Your task to perform on an android device: toggle wifi Image 0: 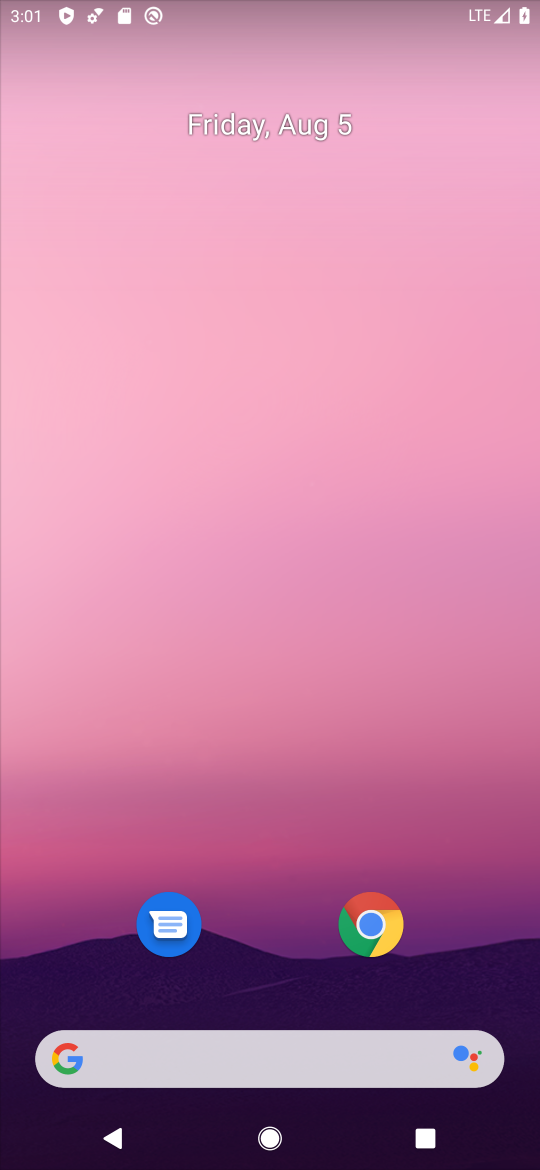
Step 0: drag from (475, 925) to (425, 150)
Your task to perform on an android device: toggle wifi Image 1: 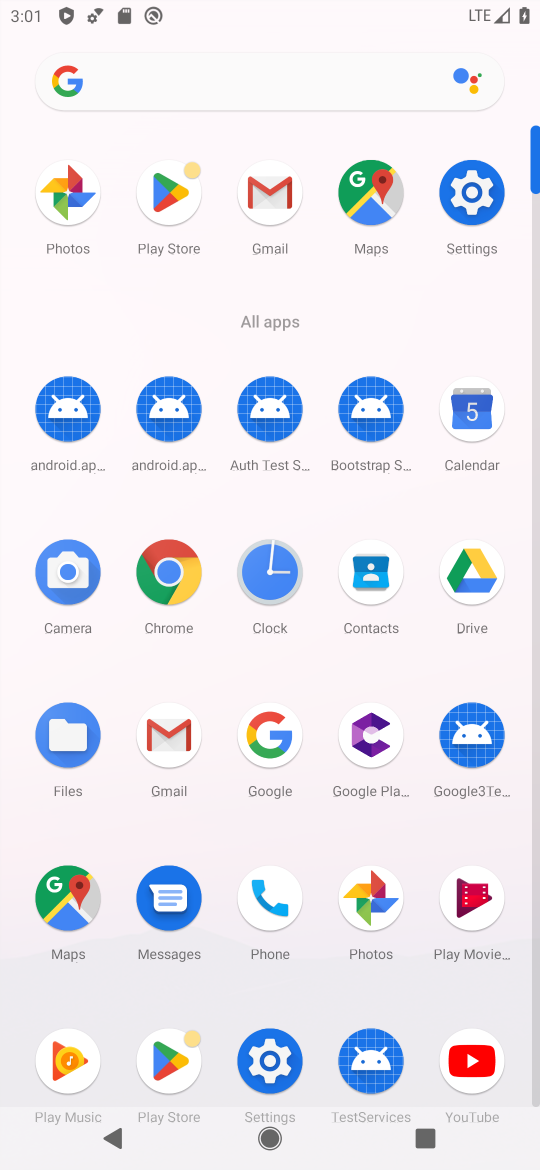
Step 1: click (258, 1063)
Your task to perform on an android device: toggle wifi Image 2: 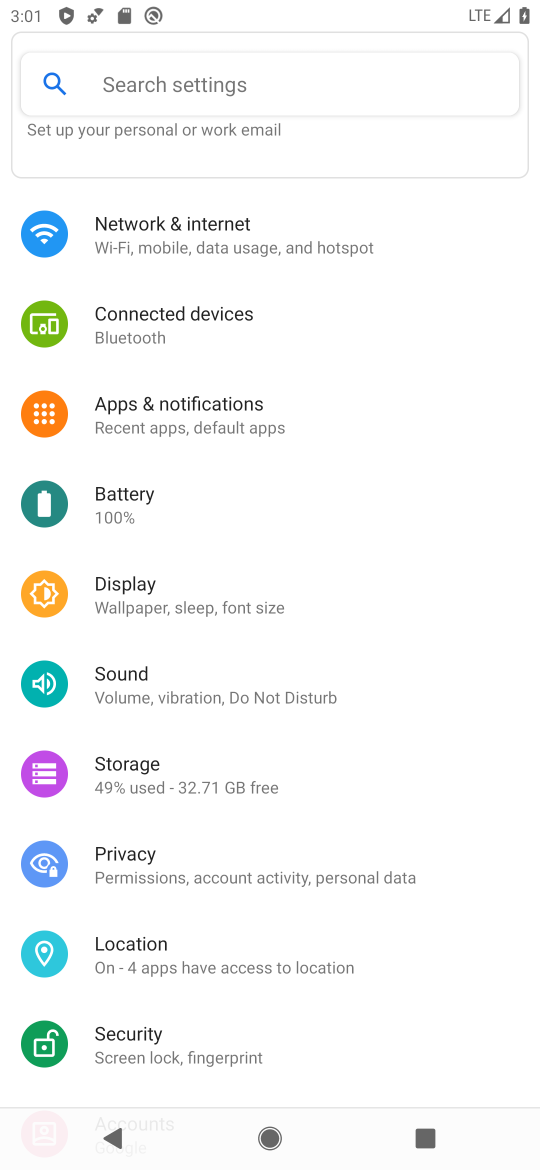
Step 2: click (204, 253)
Your task to perform on an android device: toggle wifi Image 3: 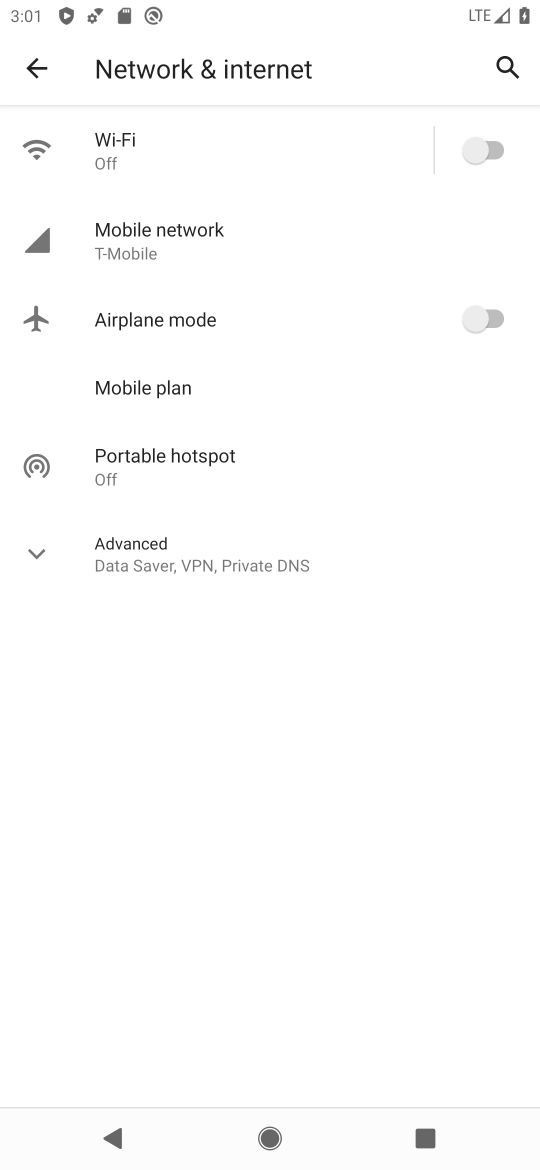
Step 3: click (447, 151)
Your task to perform on an android device: toggle wifi Image 4: 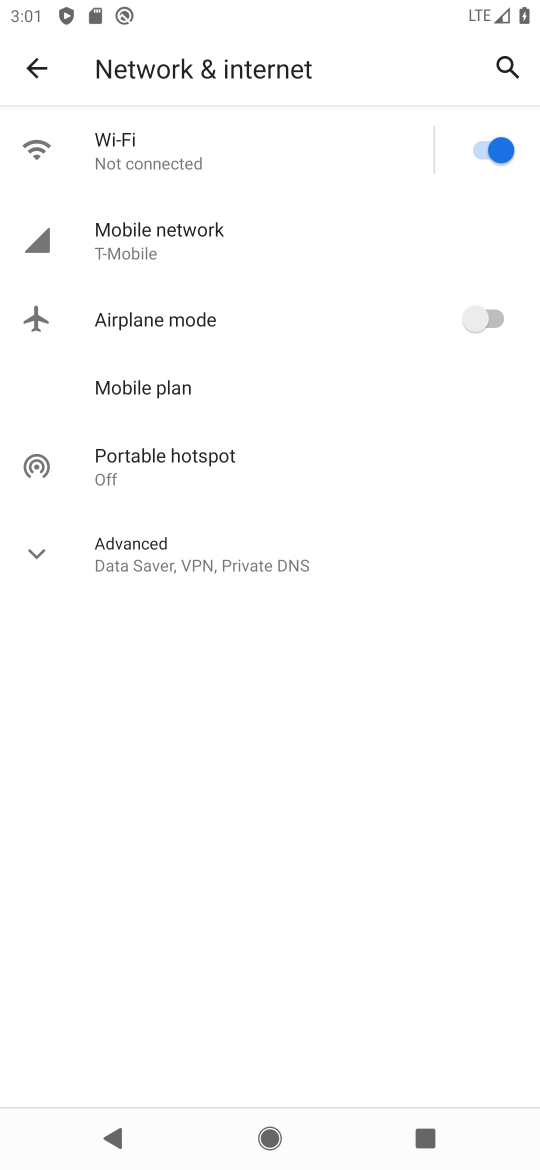
Step 4: task complete